Your task to perform on an android device: Search for vegetarian restaurants on Maps Image 0: 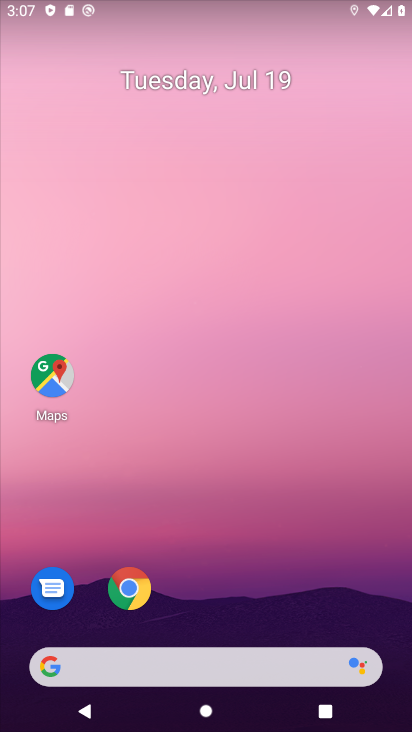
Step 0: click (49, 364)
Your task to perform on an android device: Search for vegetarian restaurants on Maps Image 1: 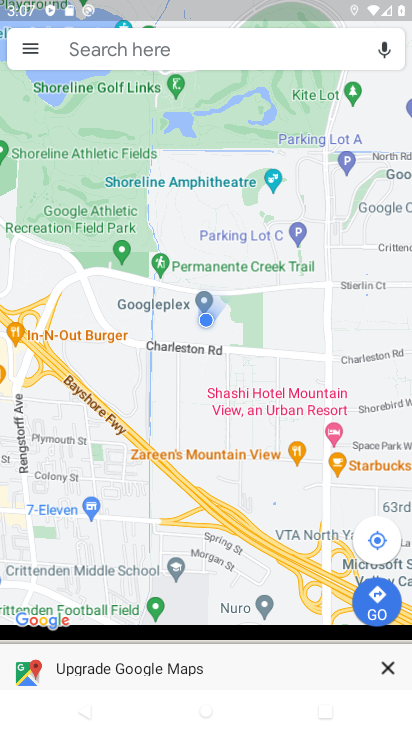
Step 1: click (93, 42)
Your task to perform on an android device: Search for vegetarian restaurants on Maps Image 2: 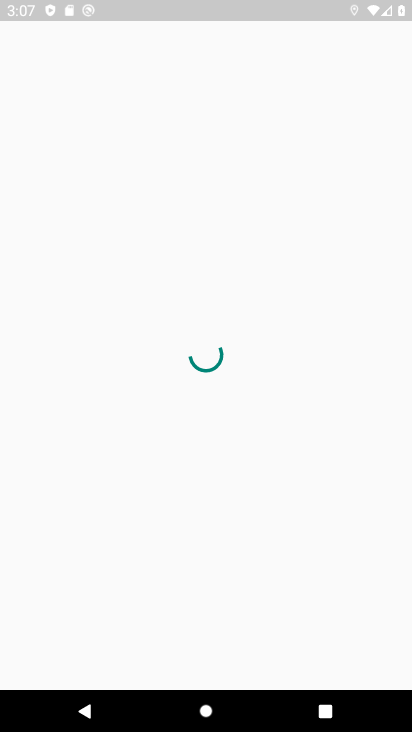
Step 2: click (157, 347)
Your task to perform on an android device: Search for vegetarian restaurants on Maps Image 3: 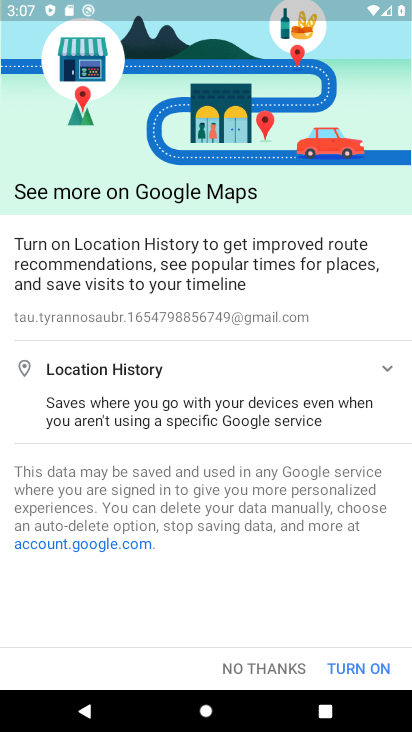
Step 3: click (360, 664)
Your task to perform on an android device: Search for vegetarian restaurants on Maps Image 4: 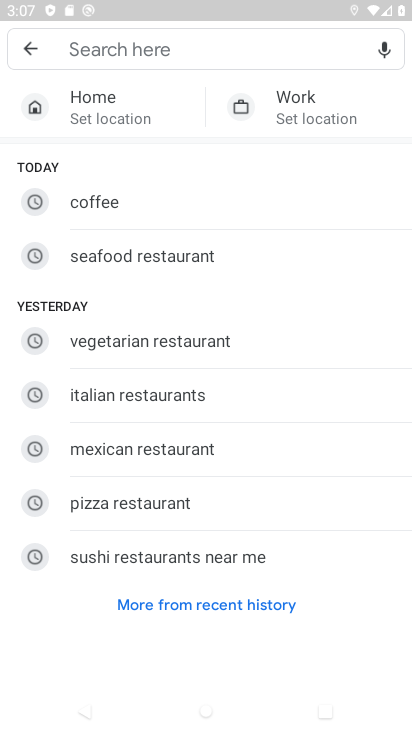
Step 4: click (119, 334)
Your task to perform on an android device: Search for vegetarian restaurants on Maps Image 5: 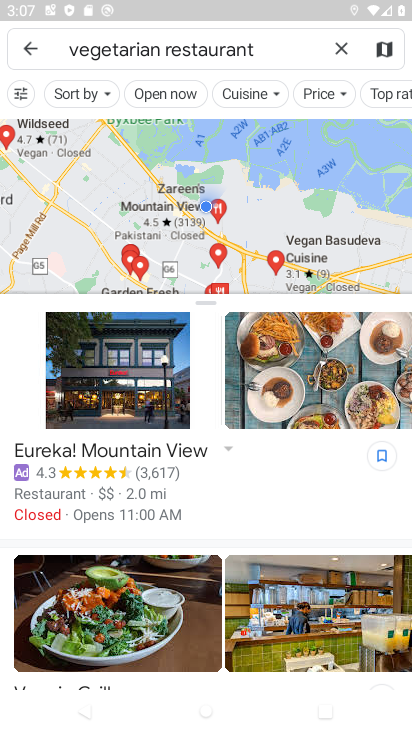
Step 5: task complete